Your task to perform on an android device: turn off sleep mode Image 0: 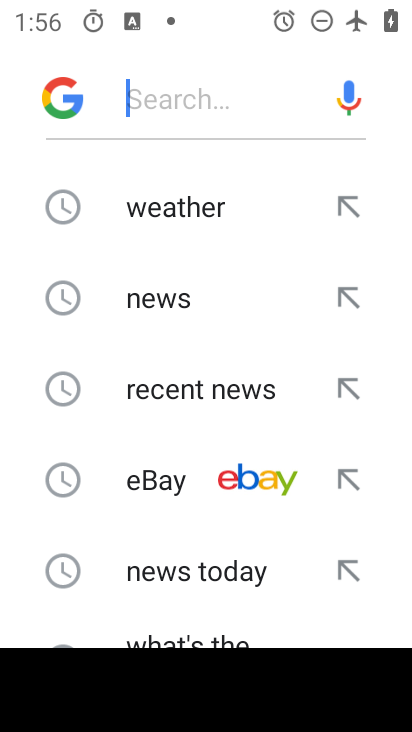
Step 0: press home button
Your task to perform on an android device: turn off sleep mode Image 1: 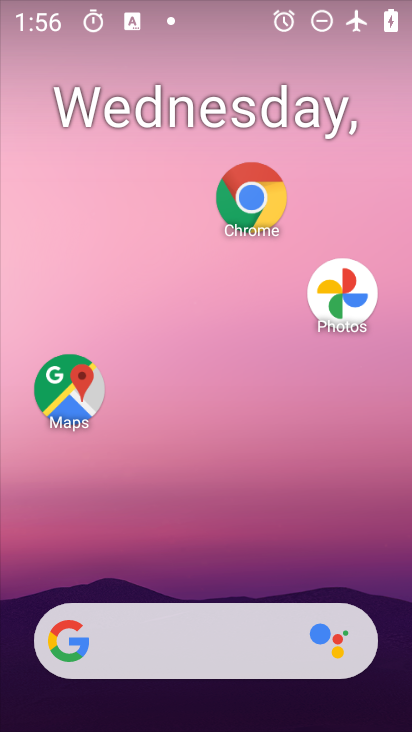
Step 1: drag from (197, 661) to (285, 208)
Your task to perform on an android device: turn off sleep mode Image 2: 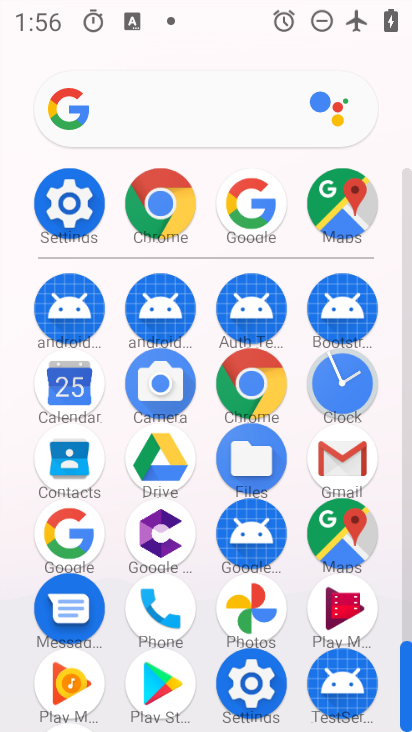
Step 2: click (82, 214)
Your task to perform on an android device: turn off sleep mode Image 3: 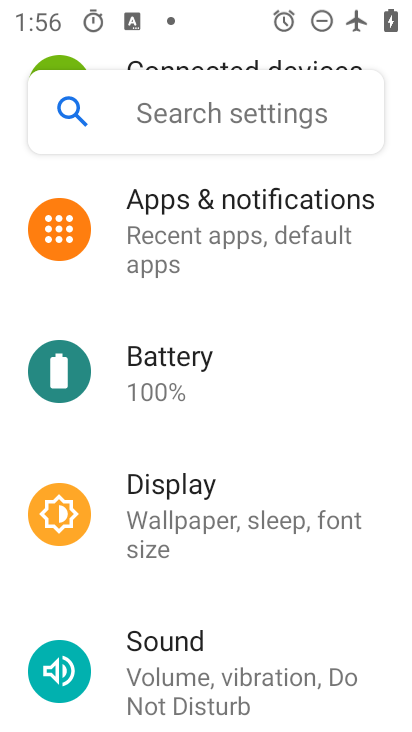
Step 3: drag from (226, 599) to (269, 355)
Your task to perform on an android device: turn off sleep mode Image 4: 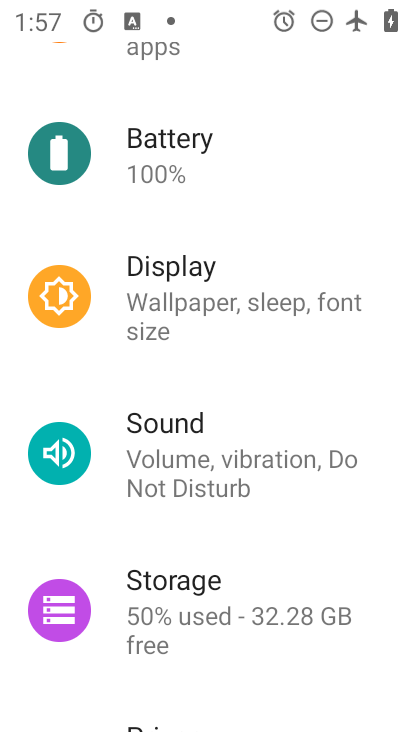
Step 4: drag from (207, 582) to (254, 294)
Your task to perform on an android device: turn off sleep mode Image 5: 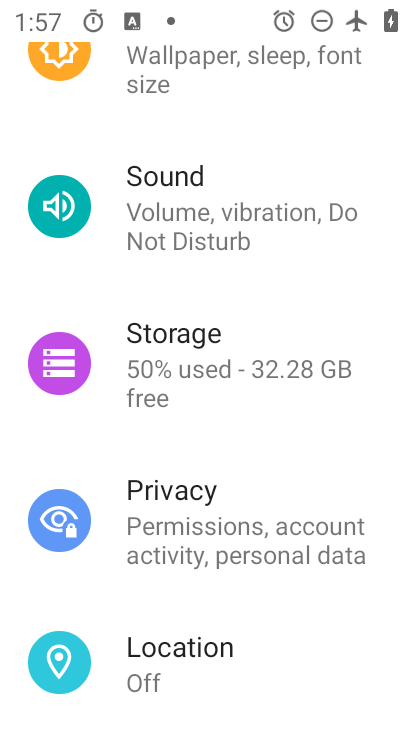
Step 5: drag from (254, 303) to (244, 667)
Your task to perform on an android device: turn off sleep mode Image 6: 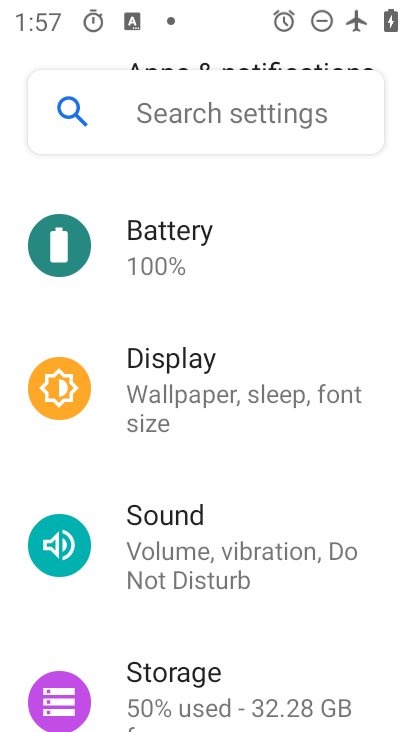
Step 6: click (238, 400)
Your task to perform on an android device: turn off sleep mode Image 7: 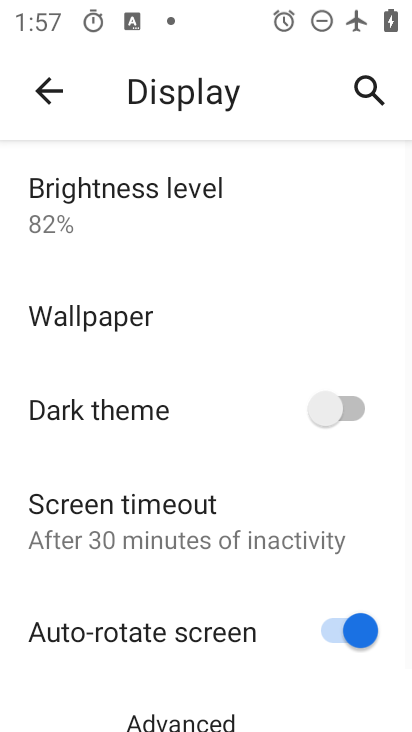
Step 7: drag from (222, 585) to (303, 264)
Your task to perform on an android device: turn off sleep mode Image 8: 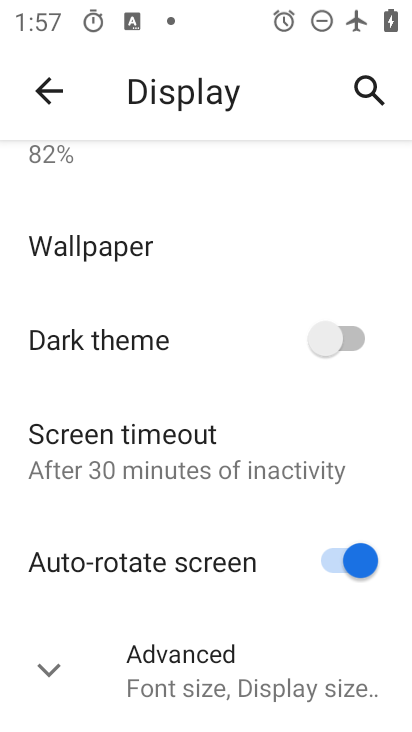
Step 8: click (234, 690)
Your task to perform on an android device: turn off sleep mode Image 9: 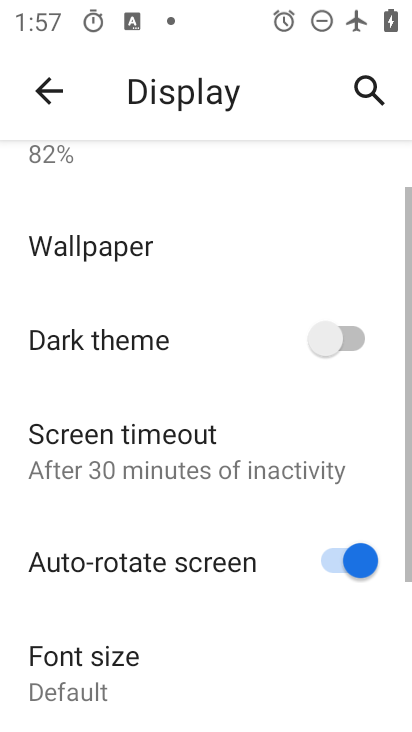
Step 9: task complete